Your task to perform on an android device: Go to accessibility settings Image 0: 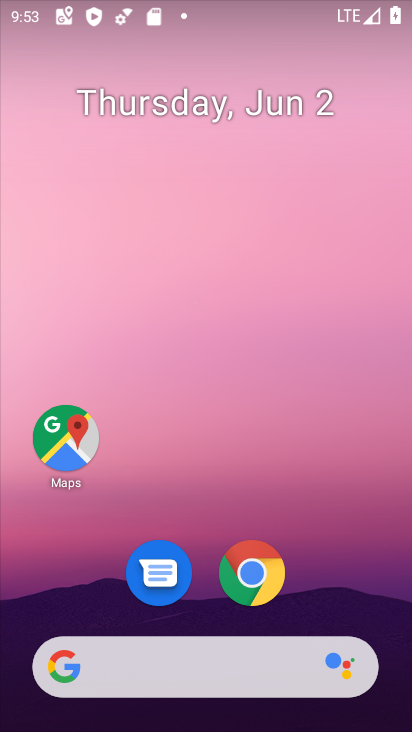
Step 0: drag from (313, 584) to (337, 69)
Your task to perform on an android device: Go to accessibility settings Image 1: 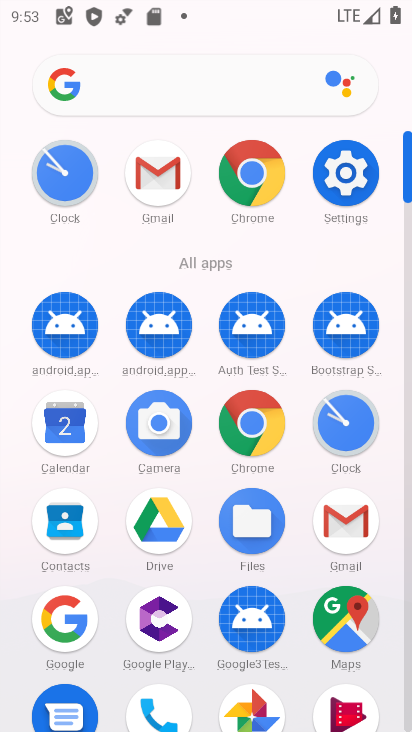
Step 1: click (346, 161)
Your task to perform on an android device: Go to accessibility settings Image 2: 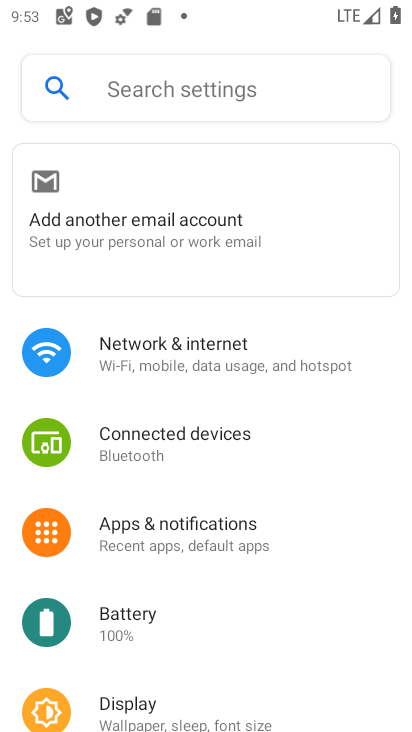
Step 2: drag from (215, 587) to (248, 127)
Your task to perform on an android device: Go to accessibility settings Image 3: 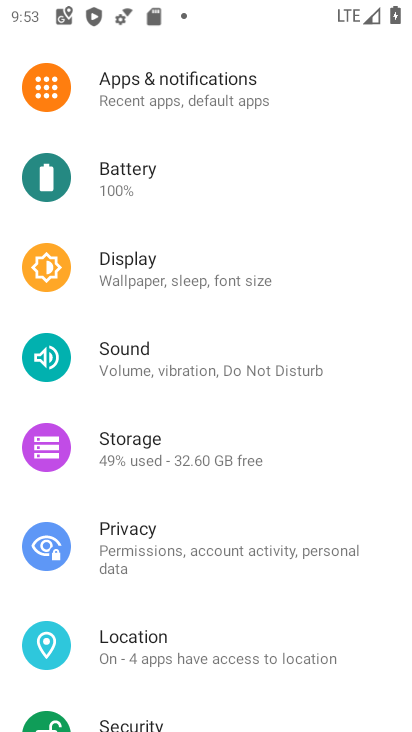
Step 3: drag from (250, 589) to (226, 141)
Your task to perform on an android device: Go to accessibility settings Image 4: 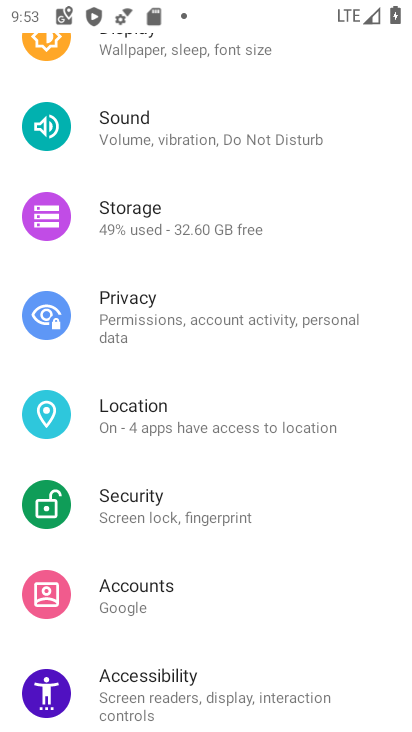
Step 4: click (194, 691)
Your task to perform on an android device: Go to accessibility settings Image 5: 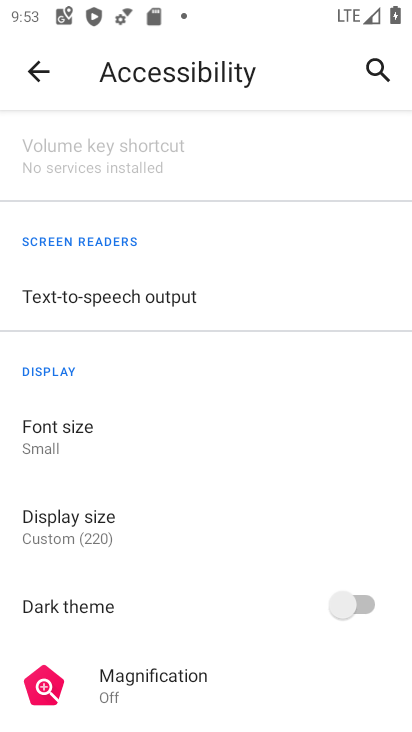
Step 5: task complete